Your task to perform on an android device: Is it going to rain today? Image 0: 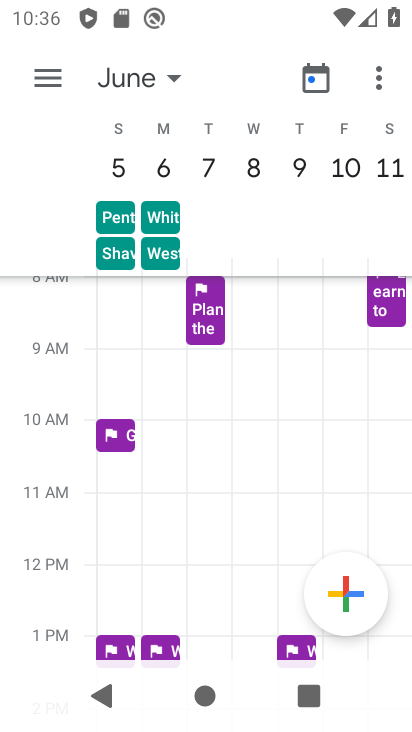
Step 0: press home button
Your task to perform on an android device: Is it going to rain today? Image 1: 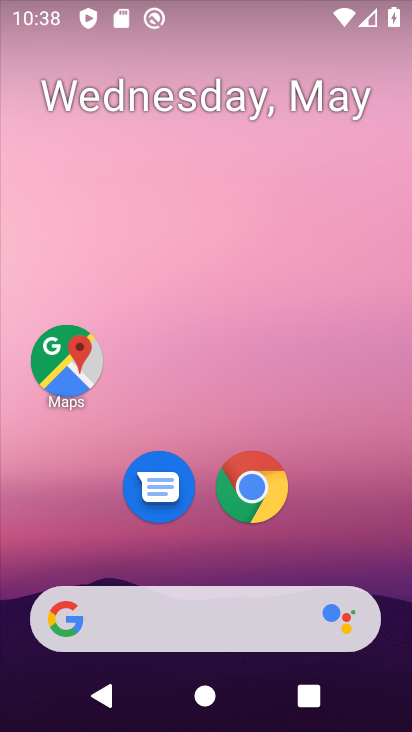
Step 1: click (248, 484)
Your task to perform on an android device: Is it going to rain today? Image 2: 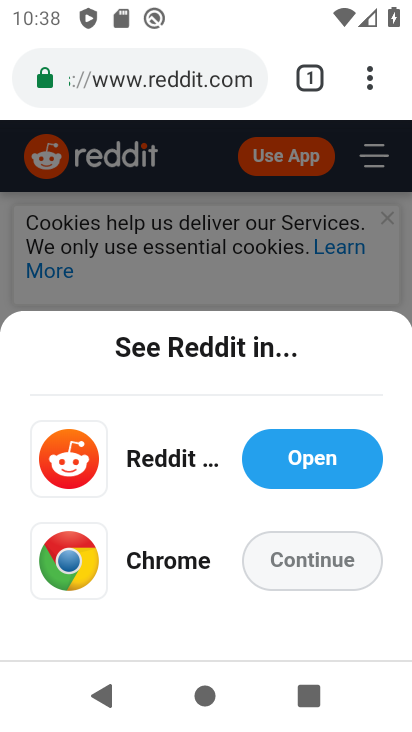
Step 2: click (139, 77)
Your task to perform on an android device: Is it going to rain today? Image 3: 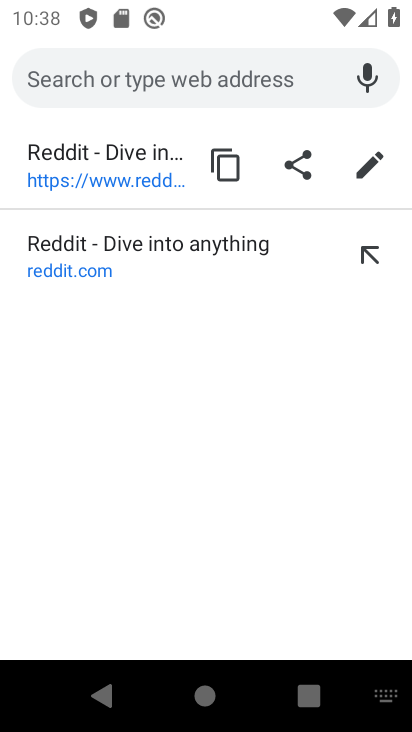
Step 3: type "Is it going to rain today?"
Your task to perform on an android device: Is it going to rain today? Image 4: 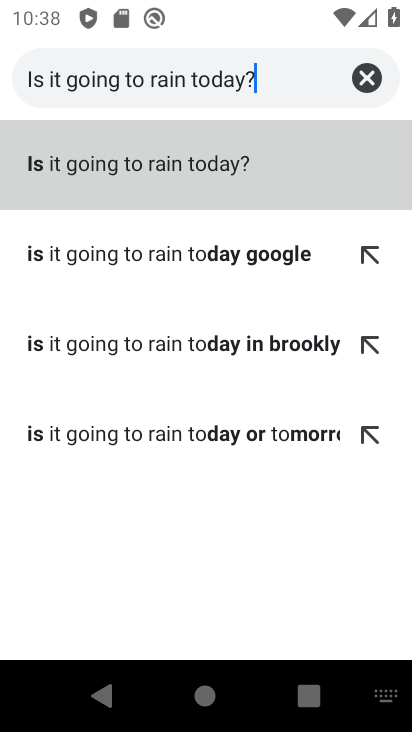
Step 4: click (223, 200)
Your task to perform on an android device: Is it going to rain today? Image 5: 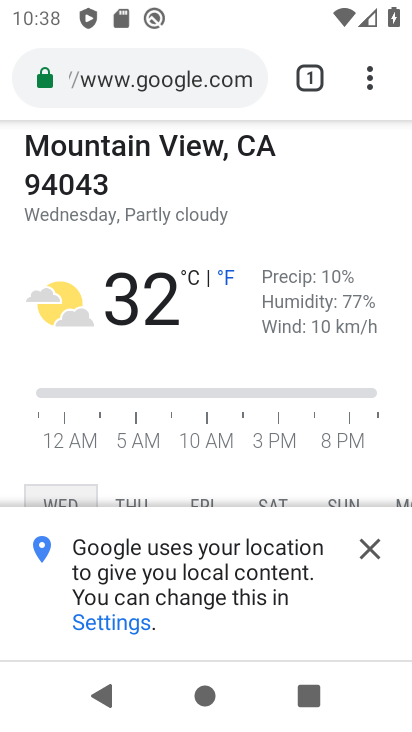
Step 5: task complete